Your task to perform on an android device: turn on sleep mode Image 0: 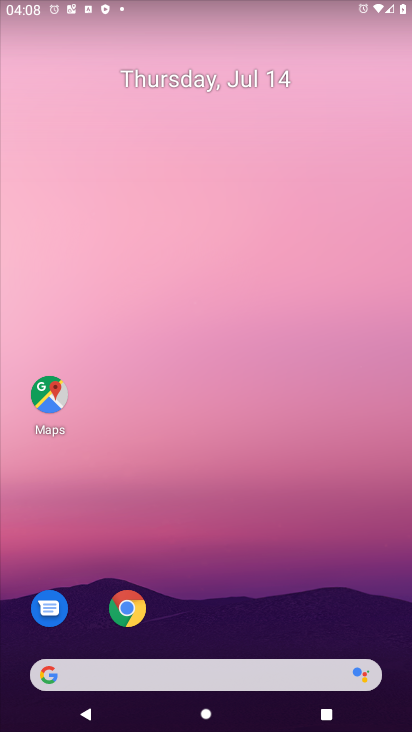
Step 0: drag from (381, 631) to (354, 67)
Your task to perform on an android device: turn on sleep mode Image 1: 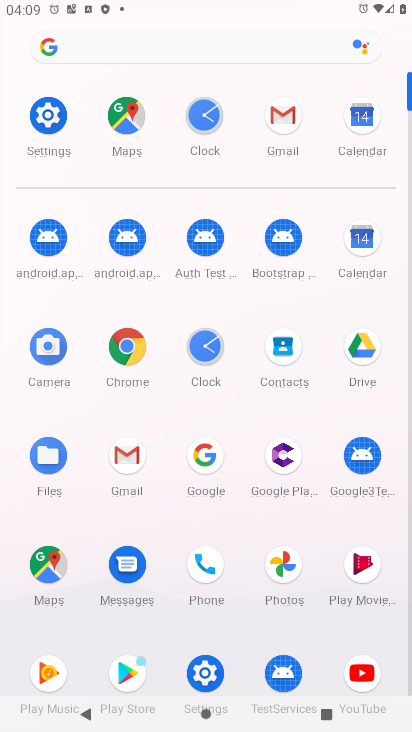
Step 1: click (205, 680)
Your task to perform on an android device: turn on sleep mode Image 2: 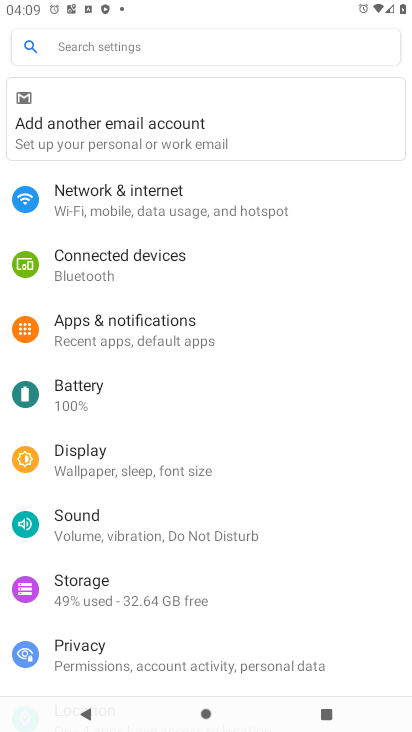
Step 2: click (72, 464)
Your task to perform on an android device: turn on sleep mode Image 3: 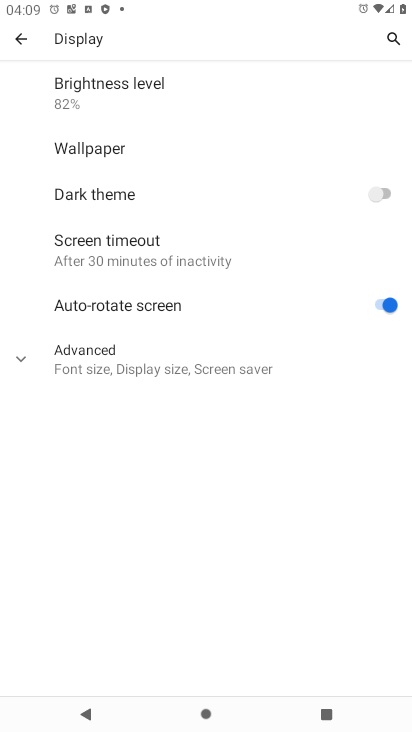
Step 3: click (35, 371)
Your task to perform on an android device: turn on sleep mode Image 4: 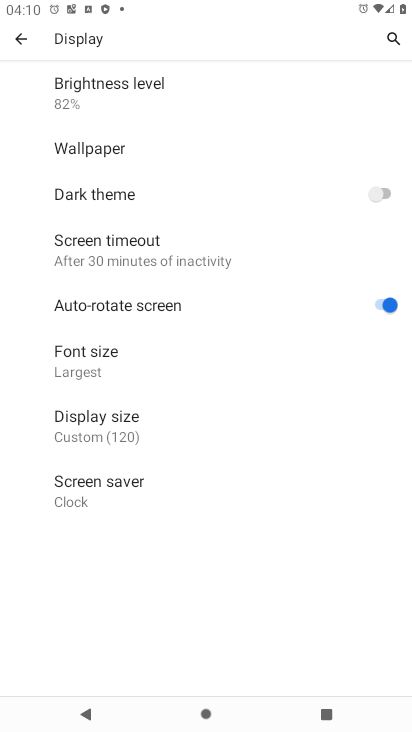
Step 4: task complete